Your task to perform on an android device: turn on translation in the chrome app Image 0: 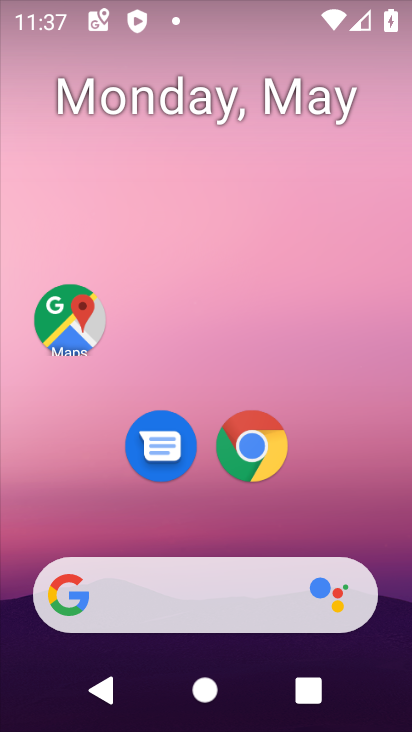
Step 0: drag from (322, 530) to (327, 257)
Your task to perform on an android device: turn on translation in the chrome app Image 1: 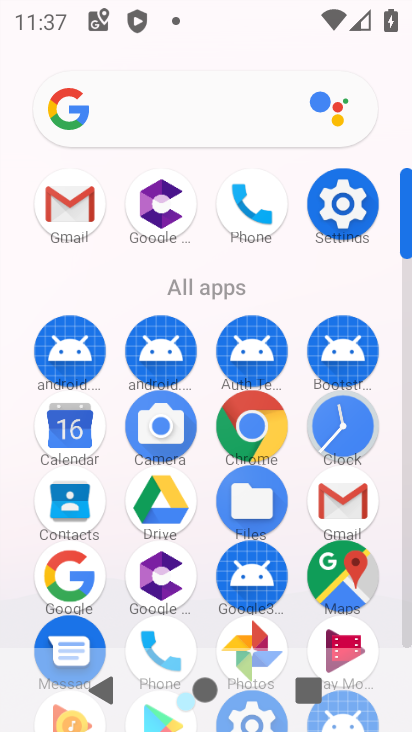
Step 1: click (352, 205)
Your task to perform on an android device: turn on translation in the chrome app Image 2: 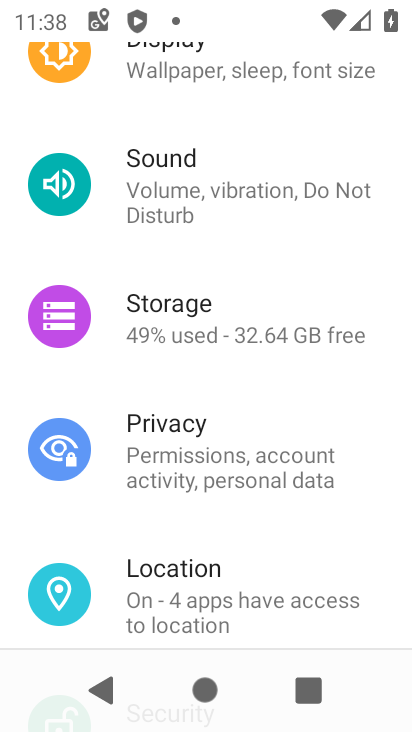
Step 2: press home button
Your task to perform on an android device: turn on translation in the chrome app Image 3: 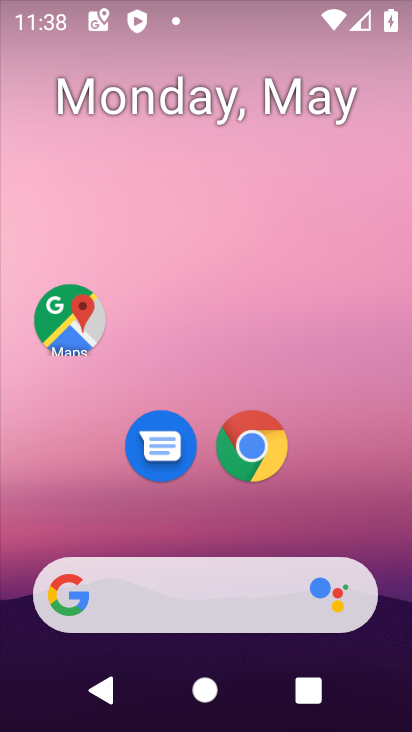
Step 3: drag from (245, 539) to (236, 127)
Your task to perform on an android device: turn on translation in the chrome app Image 4: 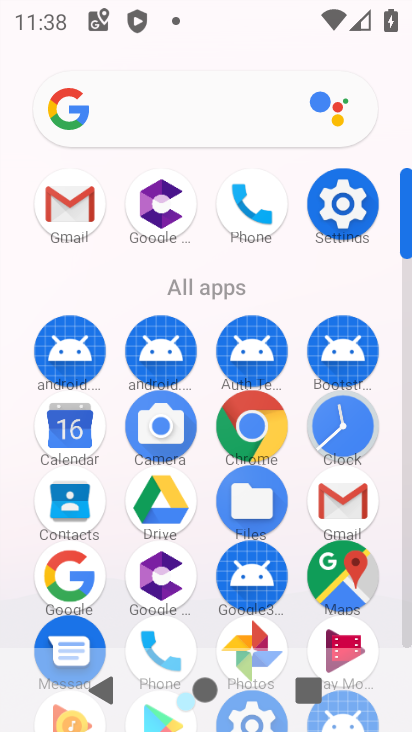
Step 4: click (253, 400)
Your task to perform on an android device: turn on translation in the chrome app Image 5: 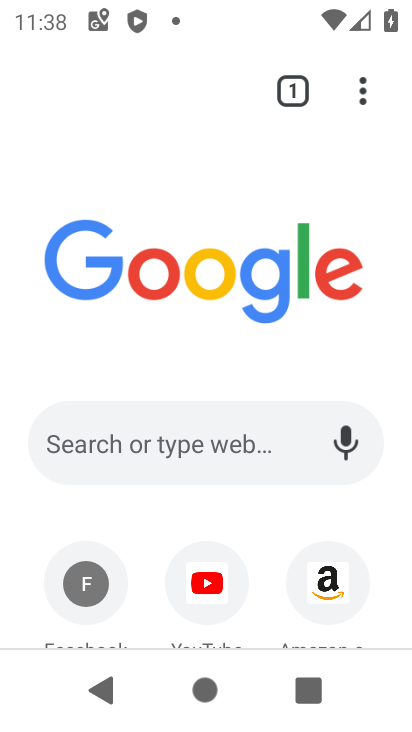
Step 5: click (356, 94)
Your task to perform on an android device: turn on translation in the chrome app Image 6: 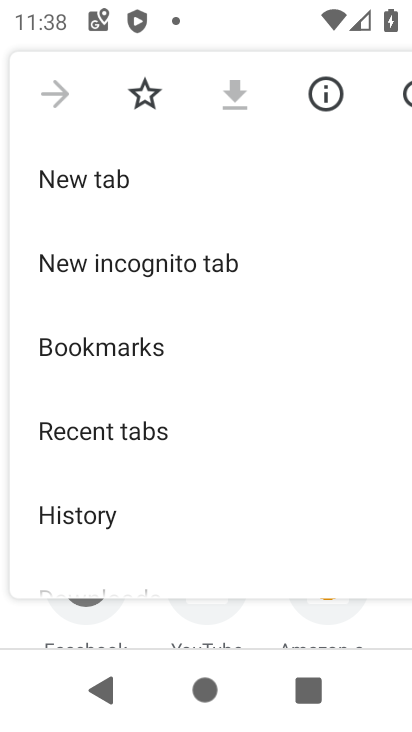
Step 6: drag from (195, 508) to (197, 180)
Your task to perform on an android device: turn on translation in the chrome app Image 7: 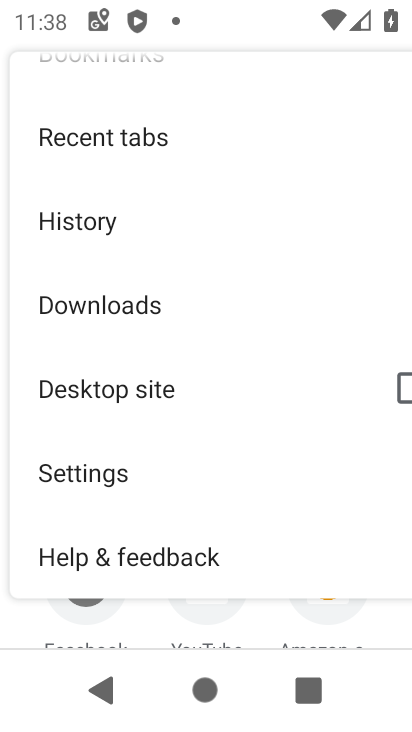
Step 7: click (139, 466)
Your task to perform on an android device: turn on translation in the chrome app Image 8: 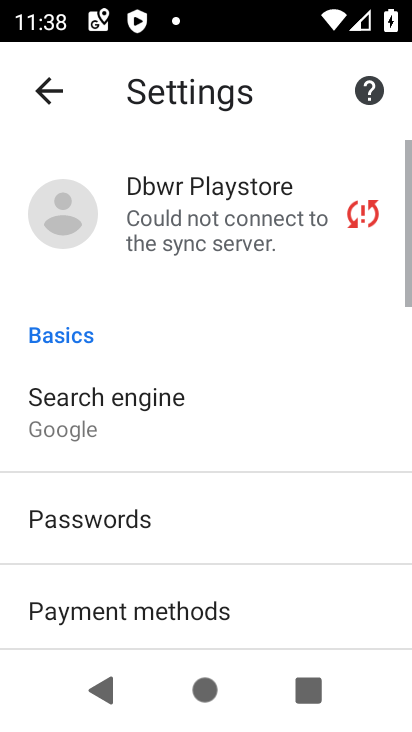
Step 8: drag from (172, 549) to (191, 187)
Your task to perform on an android device: turn on translation in the chrome app Image 9: 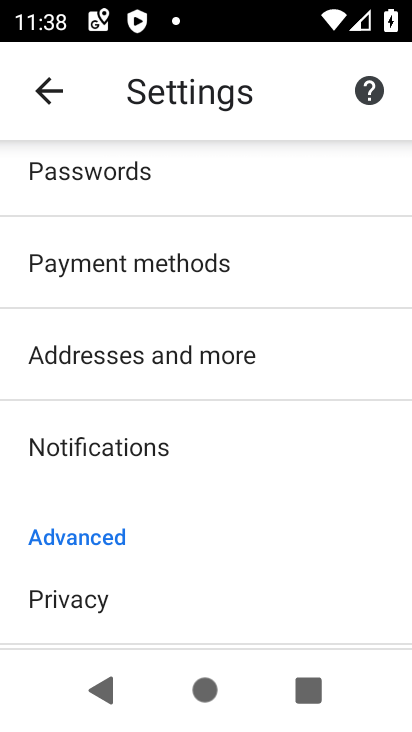
Step 9: drag from (162, 535) to (218, 243)
Your task to perform on an android device: turn on translation in the chrome app Image 10: 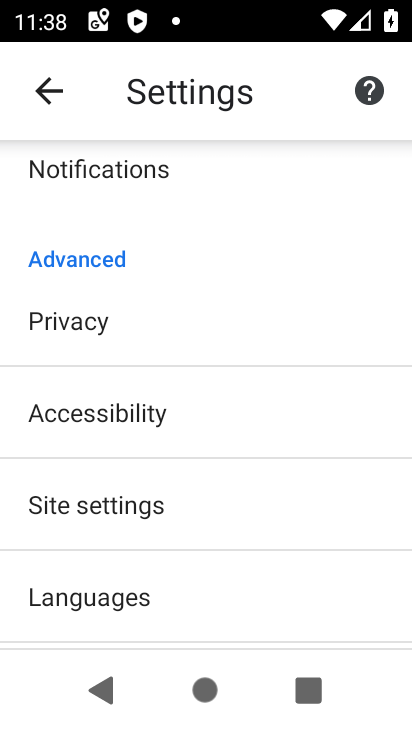
Step 10: click (153, 596)
Your task to perform on an android device: turn on translation in the chrome app Image 11: 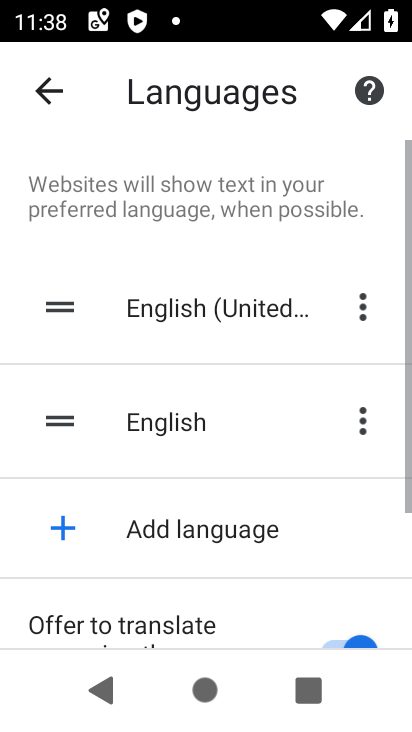
Step 11: task complete